Your task to perform on an android device: check out phone information Image 0: 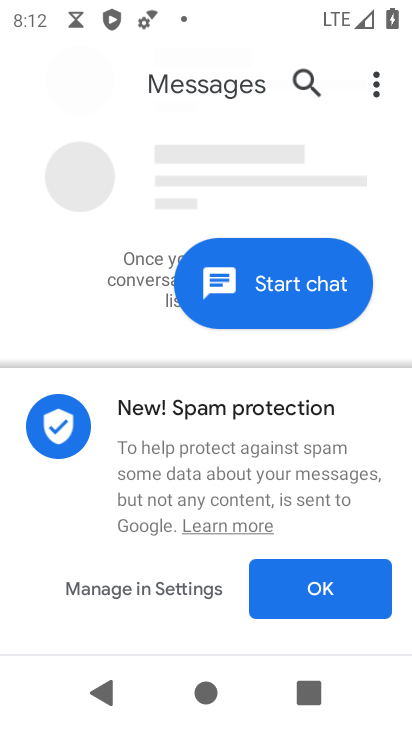
Step 0: press home button
Your task to perform on an android device: check out phone information Image 1: 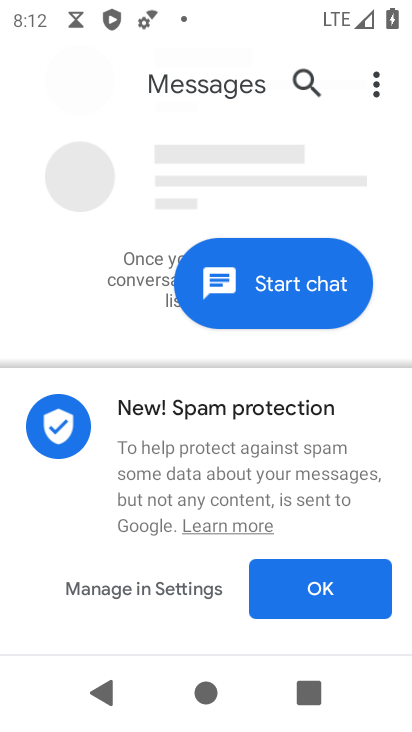
Step 1: drag from (232, 423) to (411, 184)
Your task to perform on an android device: check out phone information Image 2: 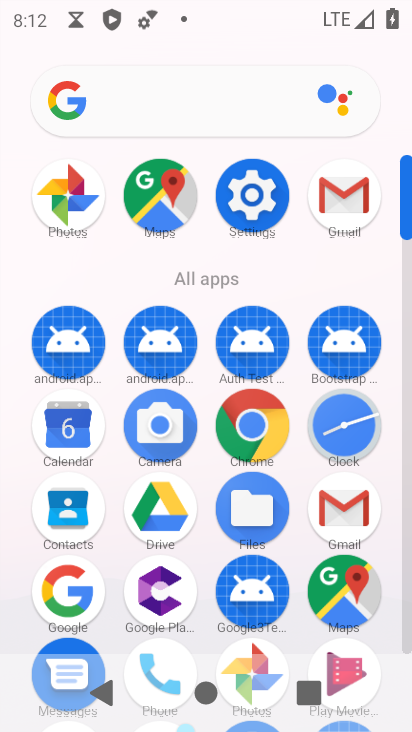
Step 2: click (247, 190)
Your task to perform on an android device: check out phone information Image 3: 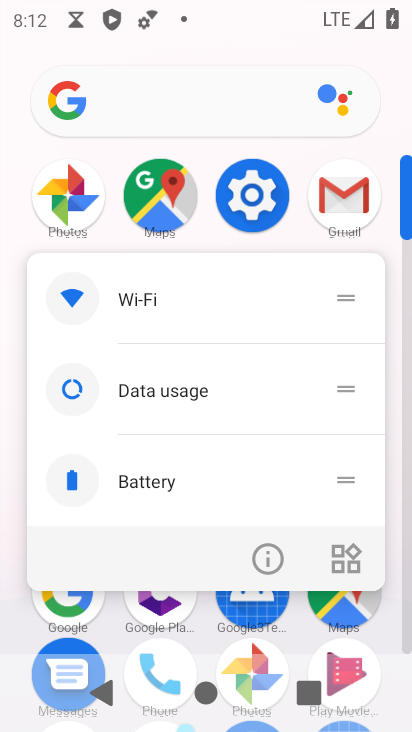
Step 3: click (266, 551)
Your task to perform on an android device: check out phone information Image 4: 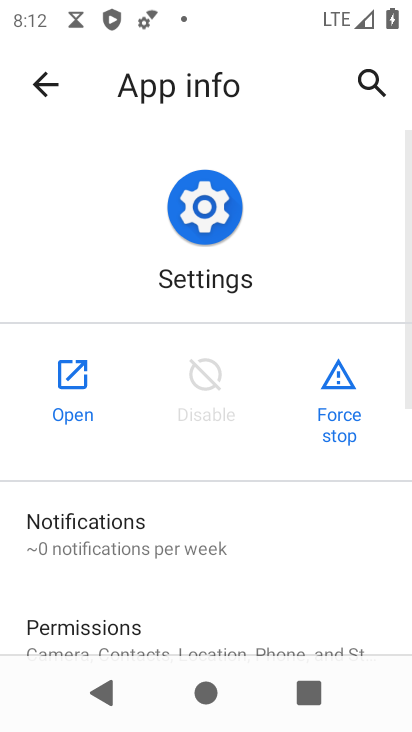
Step 4: click (68, 407)
Your task to perform on an android device: check out phone information Image 5: 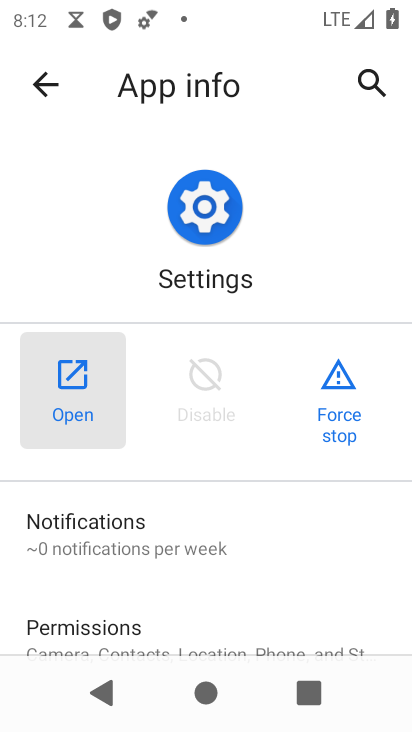
Step 5: click (68, 407)
Your task to perform on an android device: check out phone information Image 6: 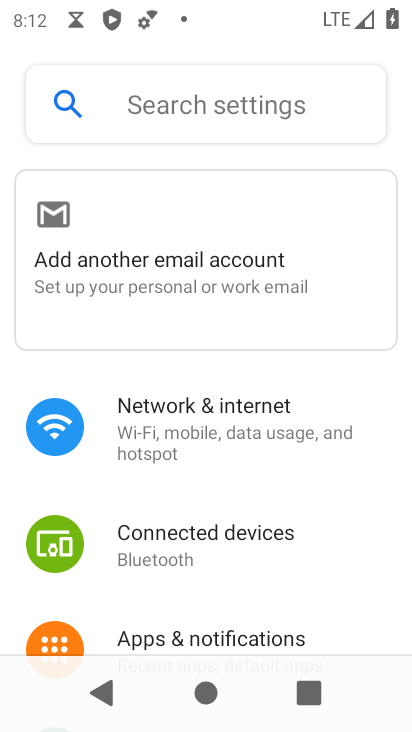
Step 6: drag from (119, 532) to (301, 3)
Your task to perform on an android device: check out phone information Image 7: 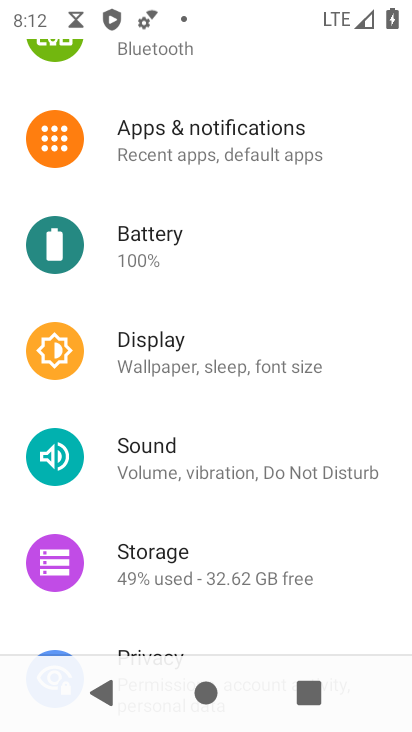
Step 7: drag from (184, 593) to (342, 5)
Your task to perform on an android device: check out phone information Image 8: 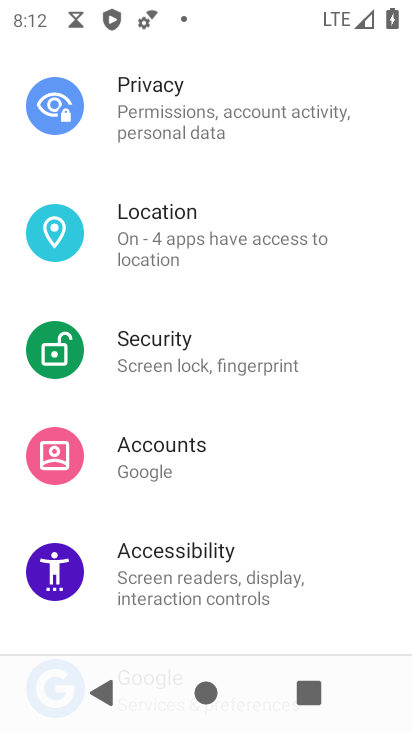
Step 8: drag from (230, 385) to (192, 1)
Your task to perform on an android device: check out phone information Image 9: 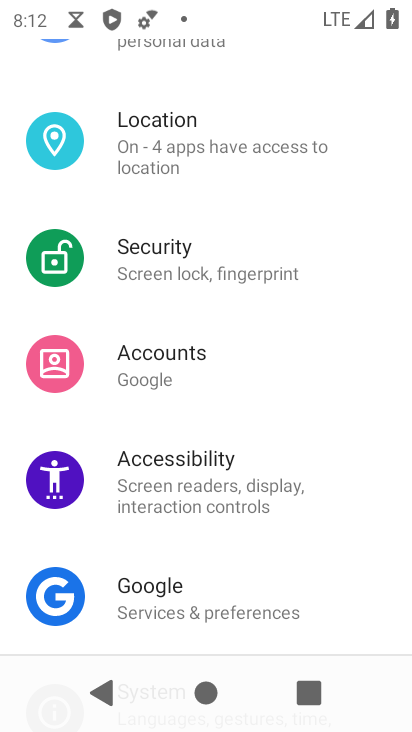
Step 9: drag from (179, 604) to (86, 4)
Your task to perform on an android device: check out phone information Image 10: 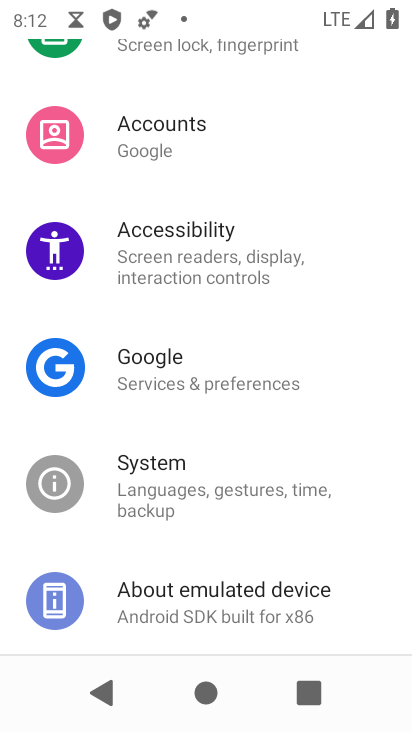
Step 10: click (248, 597)
Your task to perform on an android device: check out phone information Image 11: 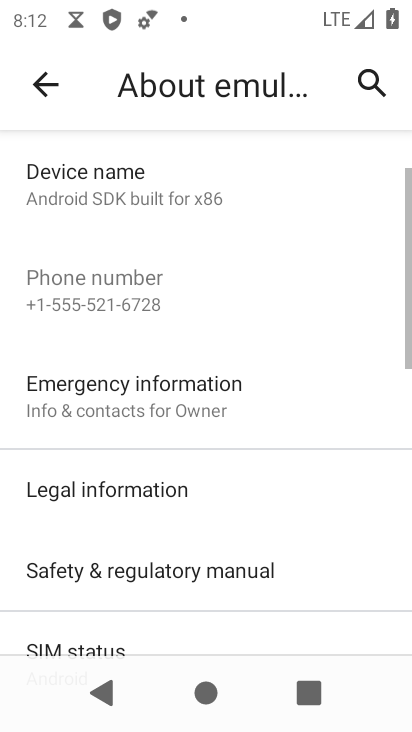
Step 11: task complete